Your task to perform on an android device: Toggle the flashlight Image 0: 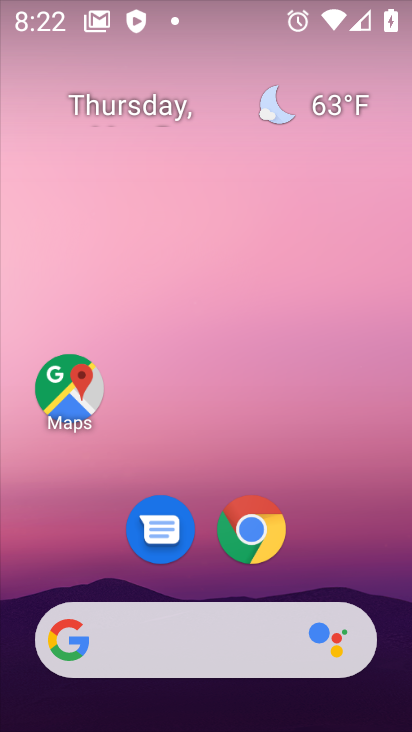
Step 0: drag from (184, 570) to (196, 162)
Your task to perform on an android device: Toggle the flashlight Image 1: 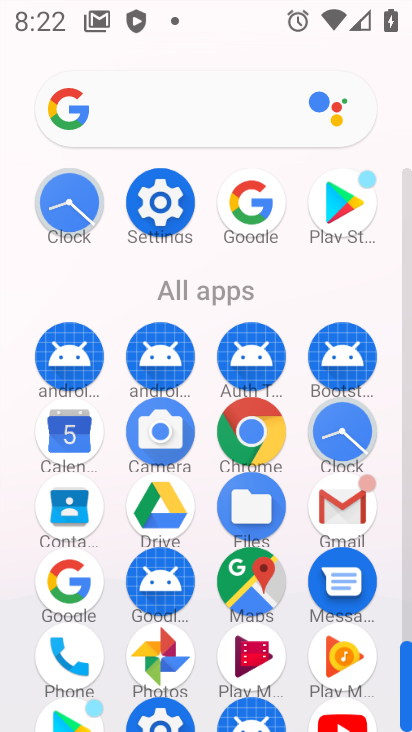
Step 1: click (166, 227)
Your task to perform on an android device: Toggle the flashlight Image 2: 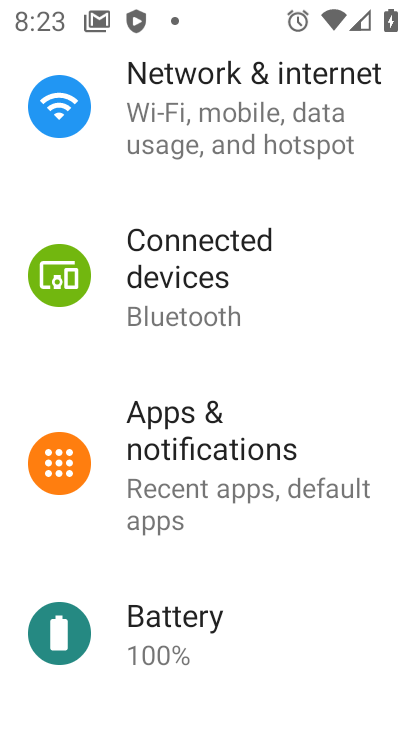
Step 2: task complete